Your task to perform on an android device: turn on the 12-hour format for clock Image 0: 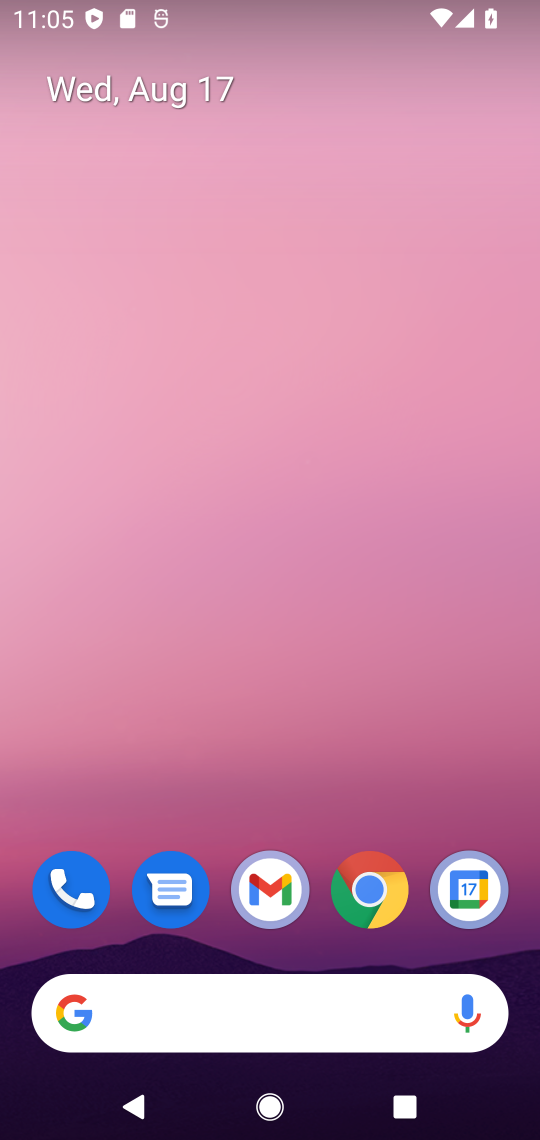
Step 0: drag from (313, 775) to (279, 0)
Your task to perform on an android device: turn on the 12-hour format for clock Image 1: 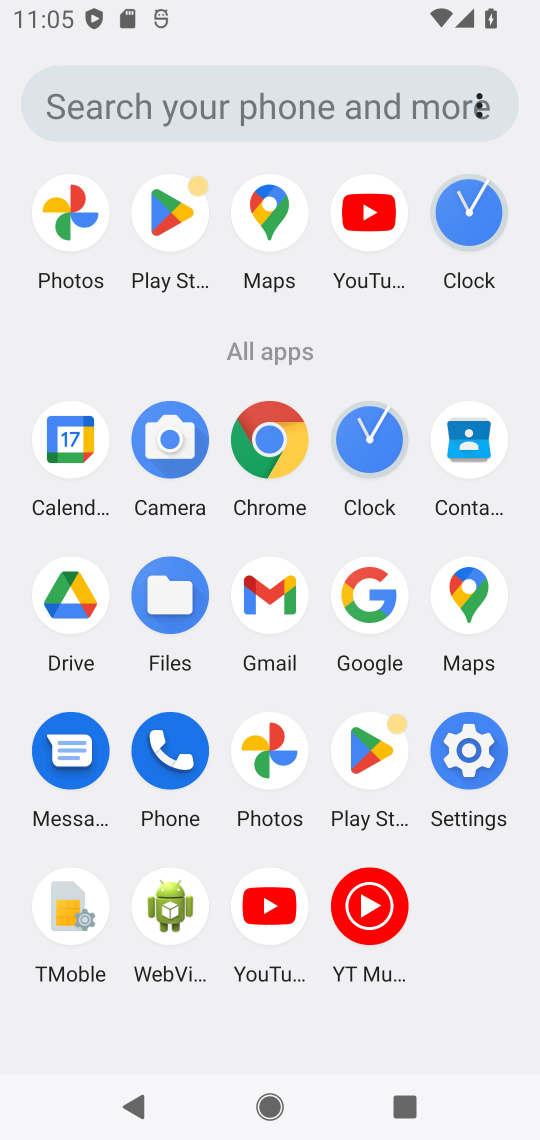
Step 1: click (378, 430)
Your task to perform on an android device: turn on the 12-hour format for clock Image 2: 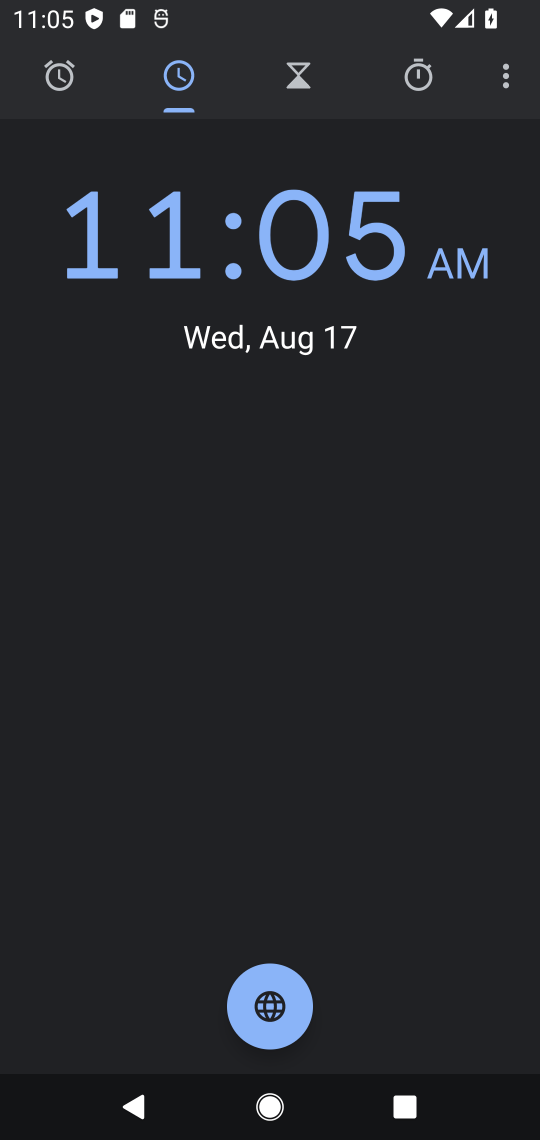
Step 2: task complete